Your task to perform on an android device: snooze an email in the gmail app Image 0: 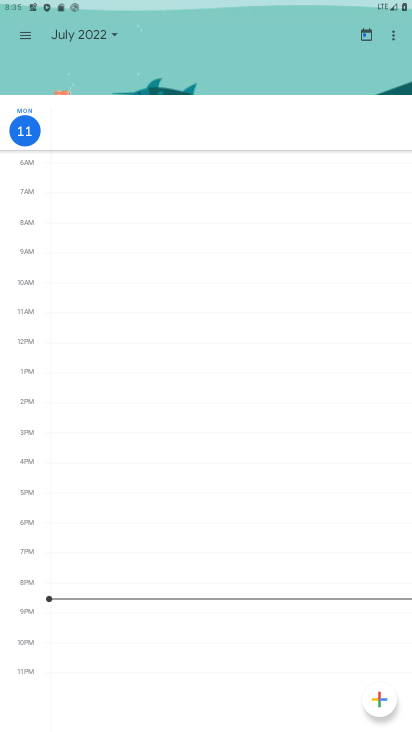
Step 0: press home button
Your task to perform on an android device: snooze an email in the gmail app Image 1: 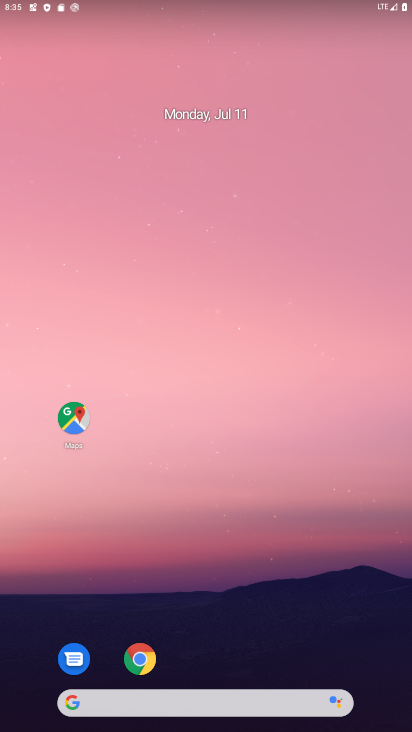
Step 1: drag from (209, 577) to (375, 36)
Your task to perform on an android device: snooze an email in the gmail app Image 2: 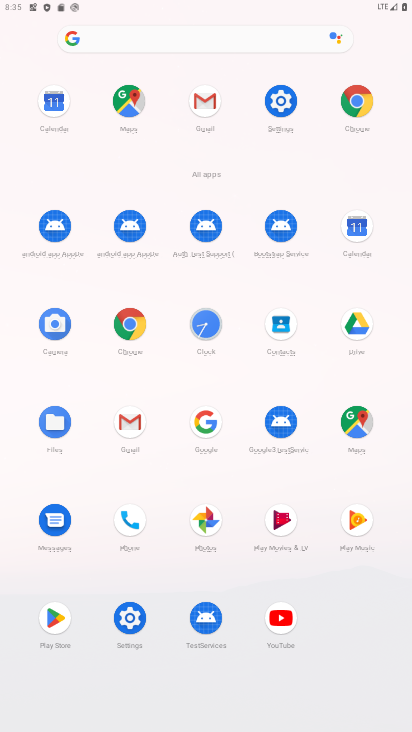
Step 2: click (133, 414)
Your task to perform on an android device: snooze an email in the gmail app Image 3: 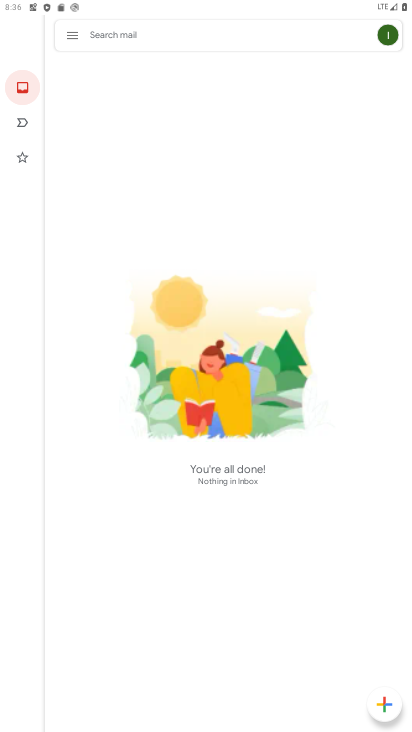
Step 3: task complete